Your task to perform on an android device: Search for "lg ultragear" on newegg.com, select the first entry, add it to the cart, then select checkout. Image 0: 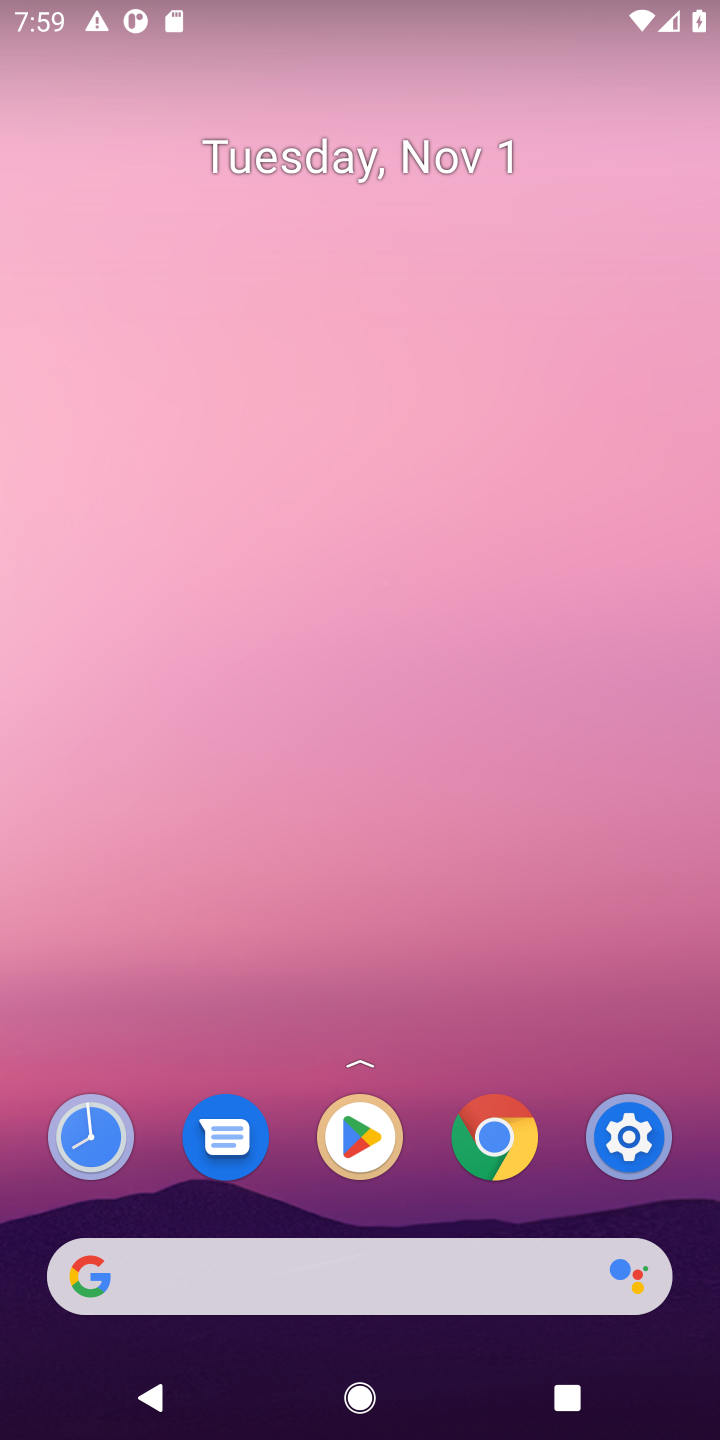
Step 0: click (296, 1268)
Your task to perform on an android device: Search for "lg ultragear" on newegg.com, select the first entry, add it to the cart, then select checkout. Image 1: 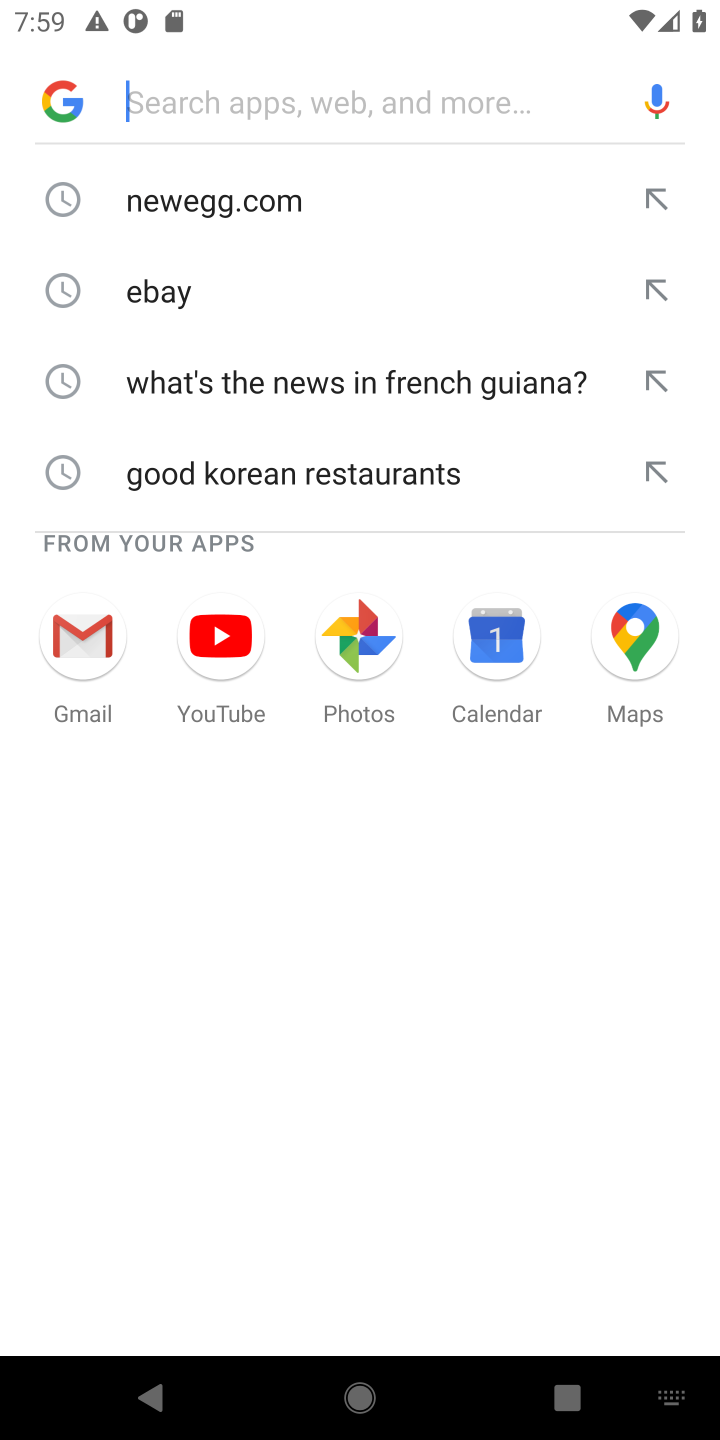
Step 1: type " newegg.com"
Your task to perform on an android device: Search for "lg ultragear" on newegg.com, select the first entry, add it to the cart, then select checkout. Image 2: 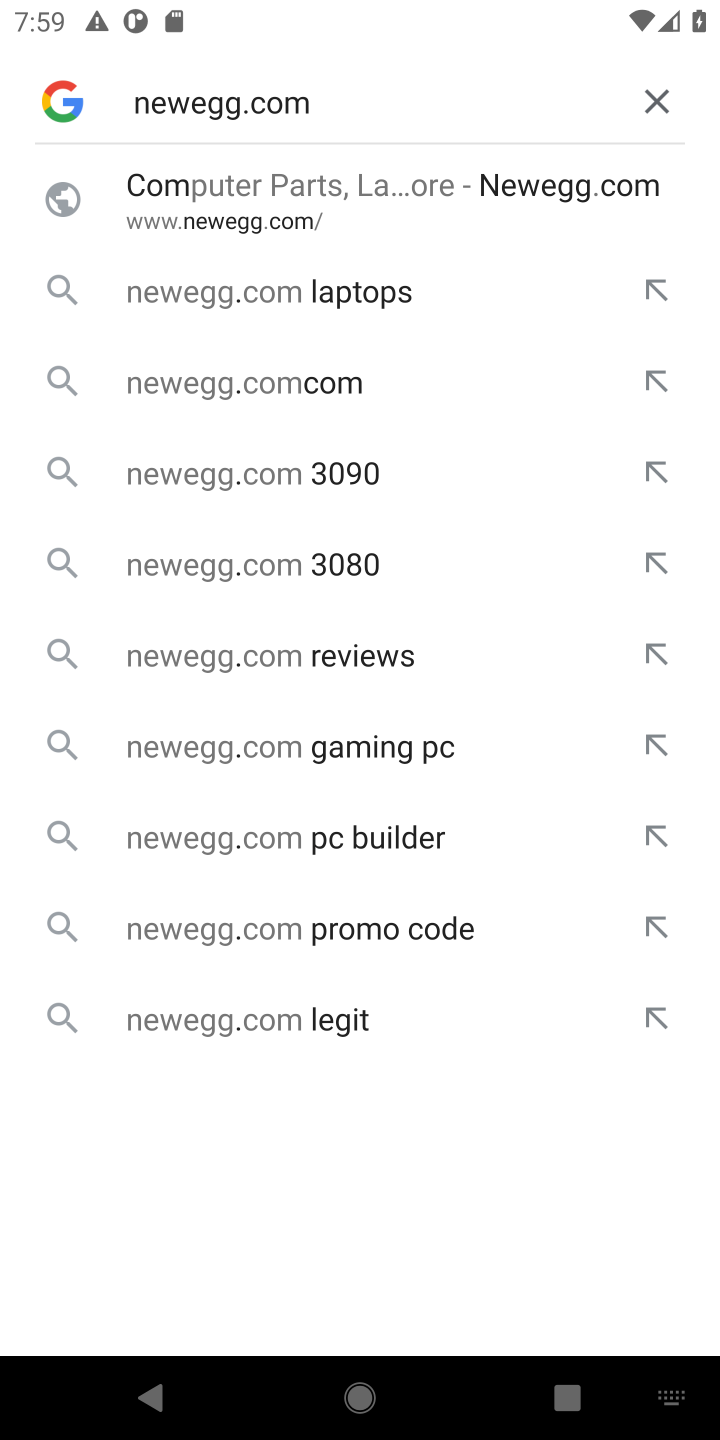
Step 2: click (222, 204)
Your task to perform on an android device: Search for "lg ultragear" on newegg.com, select the first entry, add it to the cart, then select checkout. Image 3: 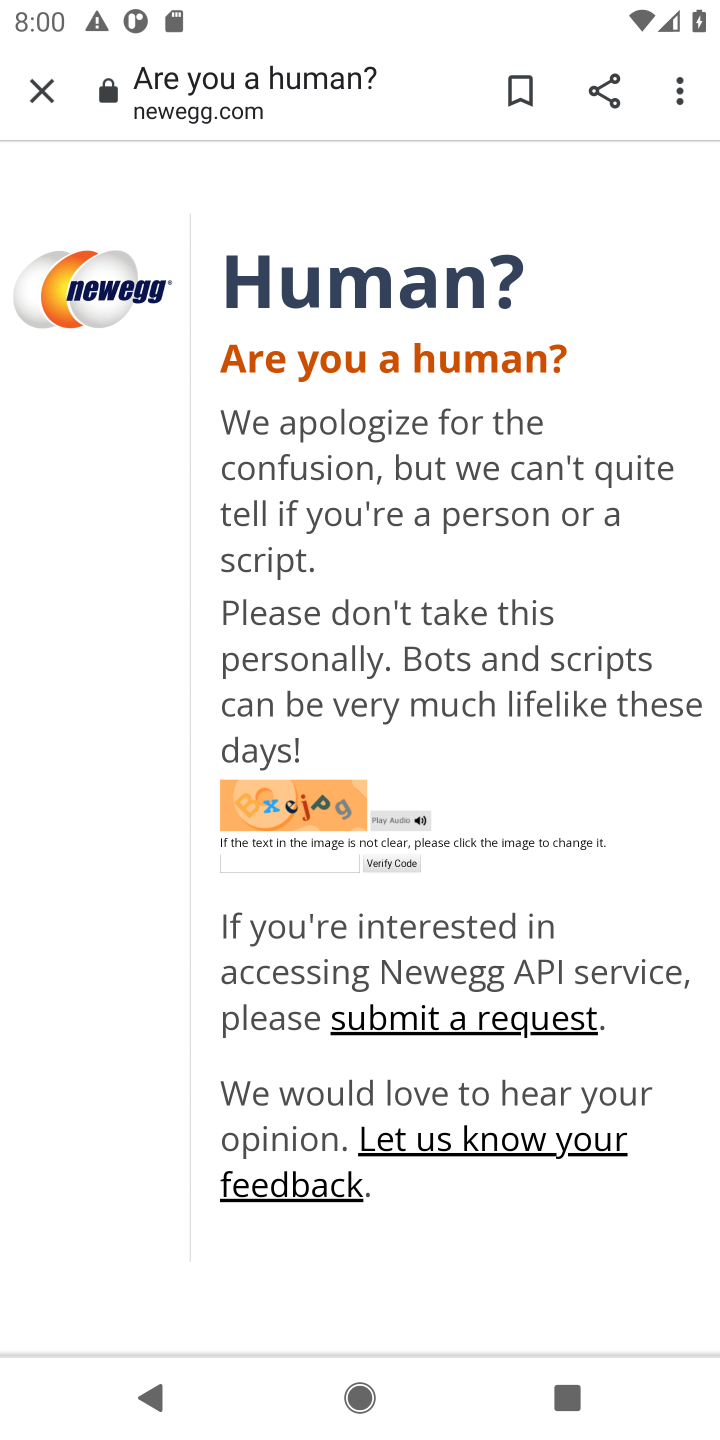
Step 3: click (298, 845)
Your task to perform on an android device: Search for "lg ultragear" on newegg.com, select the first entry, add it to the cart, then select checkout. Image 4: 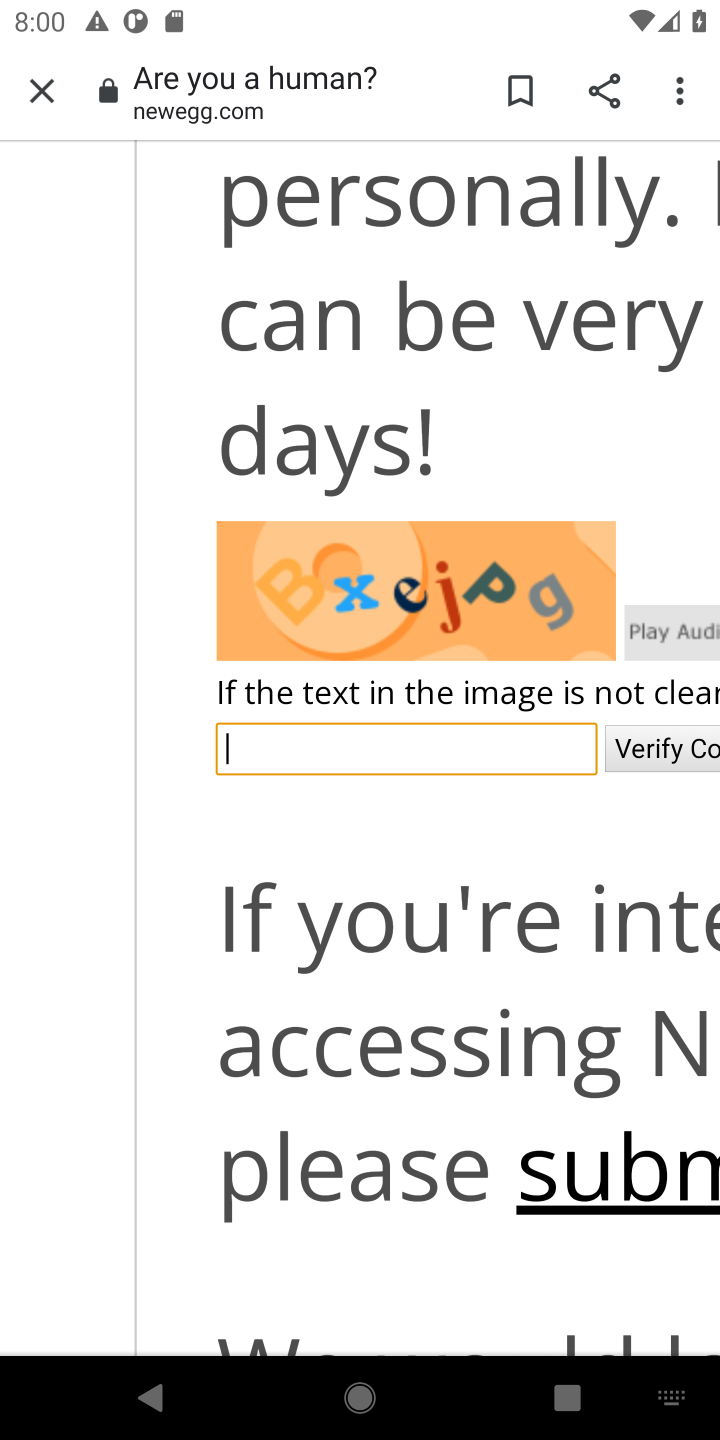
Step 4: type "Bxejpg"
Your task to perform on an android device: Search for "lg ultragear" on newegg.com, select the first entry, add it to the cart, then select checkout. Image 5: 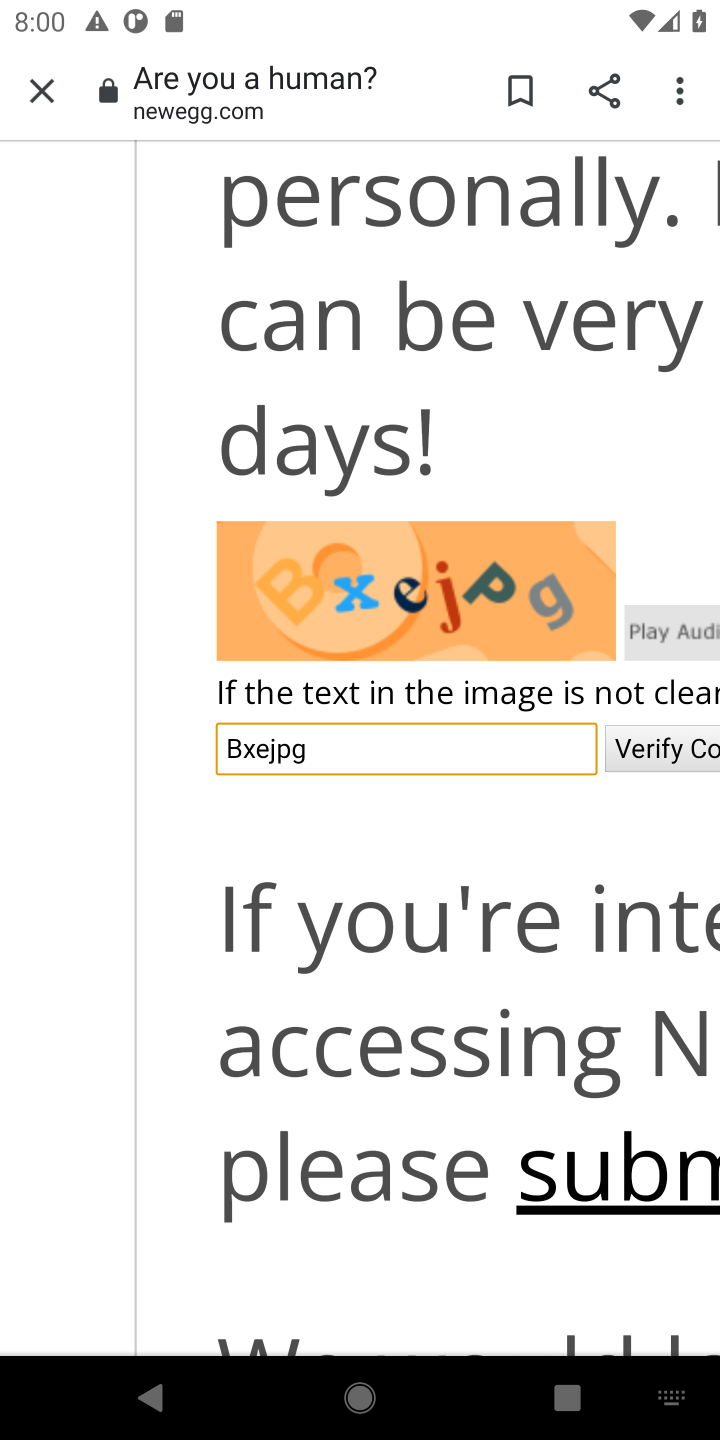
Step 5: click (651, 759)
Your task to perform on an android device: Search for "lg ultragear" on newegg.com, select the first entry, add it to the cart, then select checkout. Image 6: 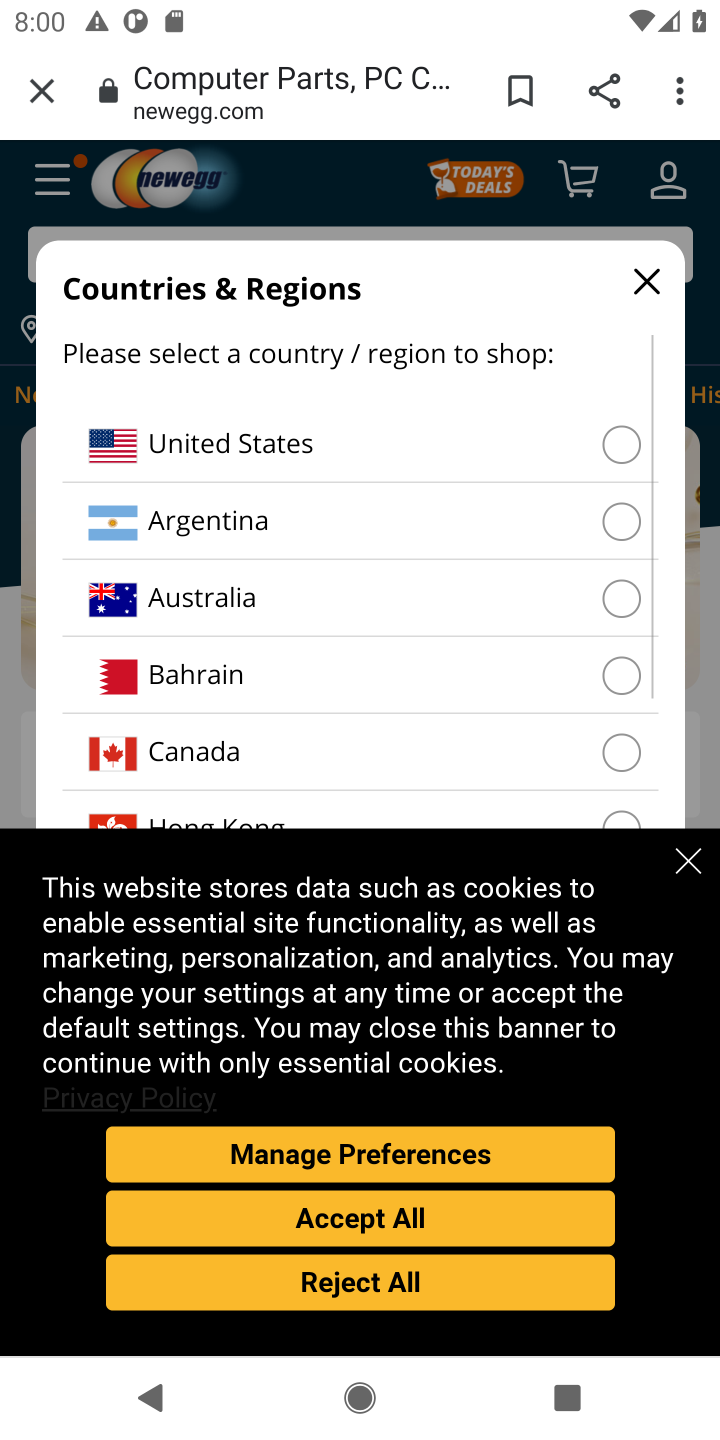
Step 6: click (684, 865)
Your task to perform on an android device: Search for "lg ultragear" on newegg.com, select the first entry, add it to the cart, then select checkout. Image 7: 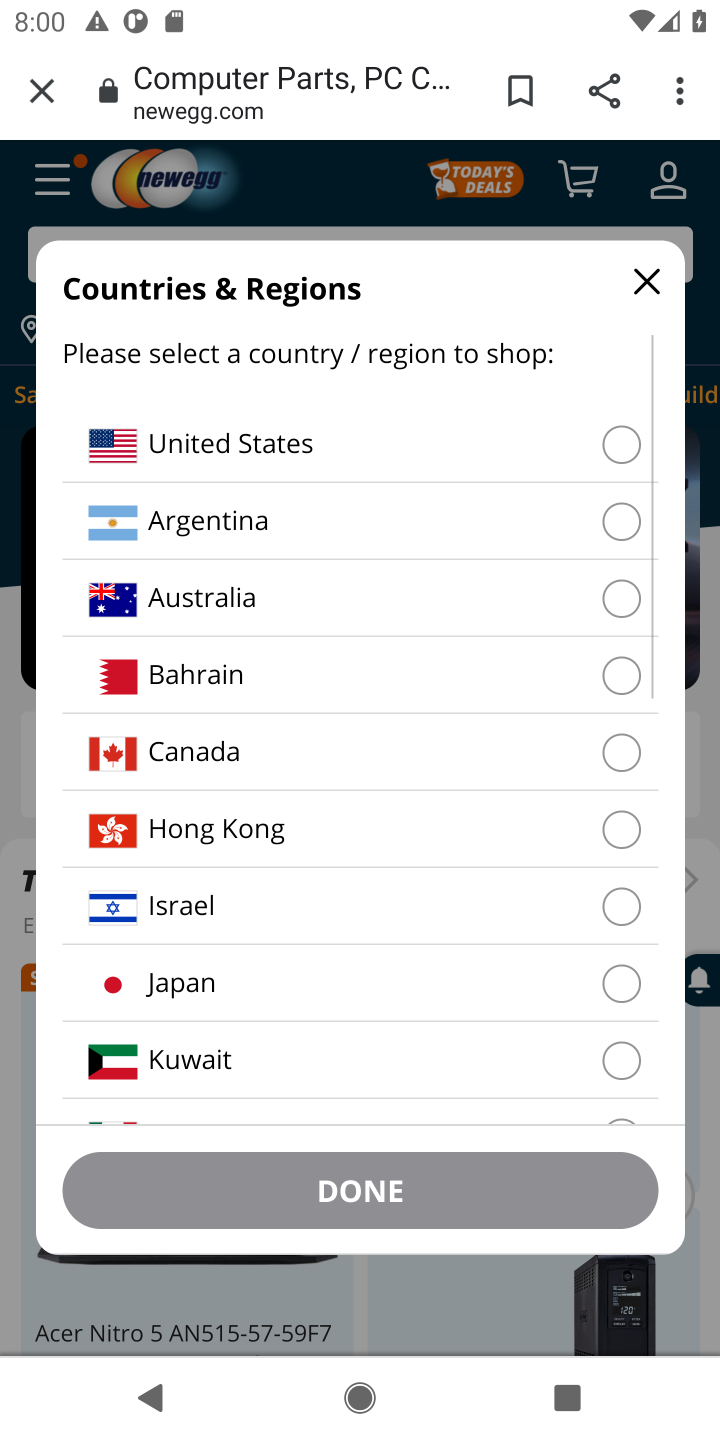
Step 7: click (624, 462)
Your task to perform on an android device: Search for "lg ultragear" on newegg.com, select the first entry, add it to the cart, then select checkout. Image 8: 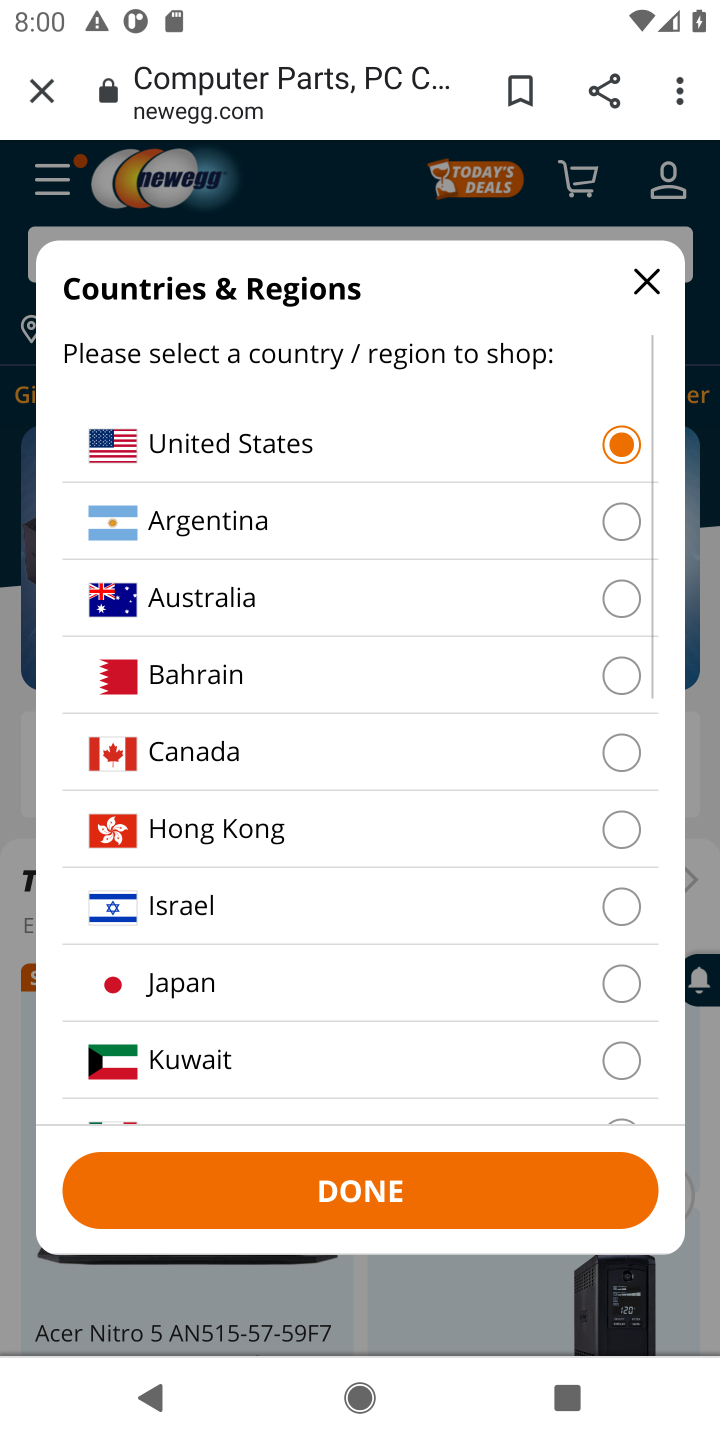
Step 8: click (342, 1168)
Your task to perform on an android device: Search for "lg ultragear" on newegg.com, select the first entry, add it to the cart, then select checkout. Image 9: 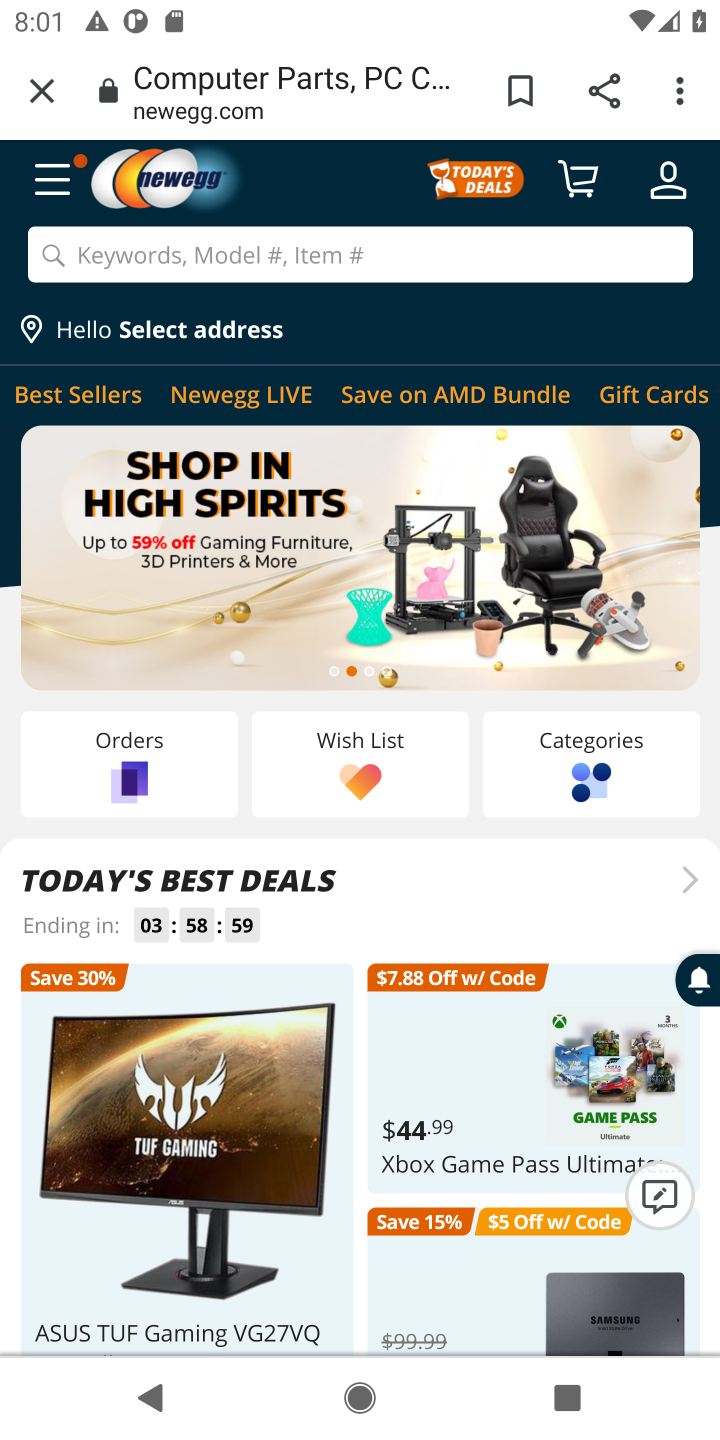
Step 9: click (290, 266)
Your task to perform on an android device: Search for "lg ultragear" on newegg.com, select the first entry, add it to the cart, then select checkout. Image 10: 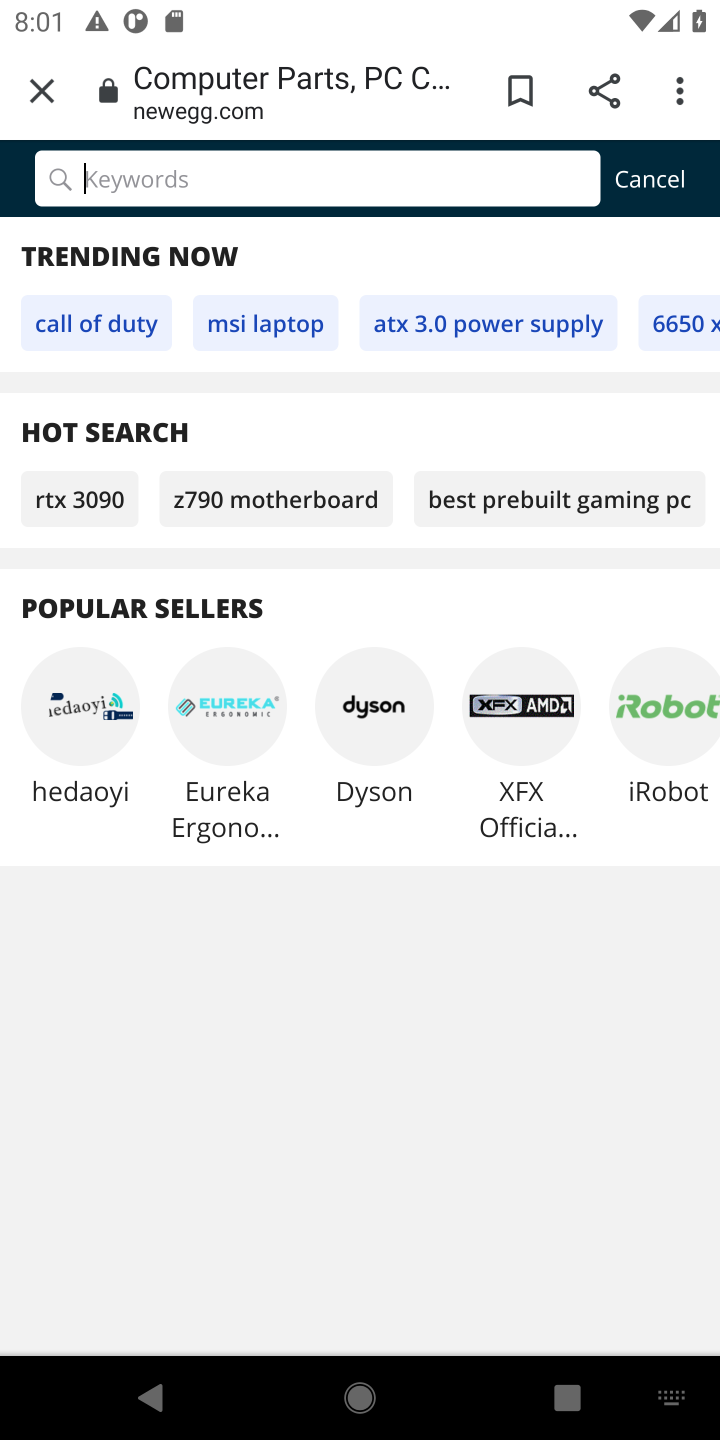
Step 10: type "lg ultragear"
Your task to perform on an android device: Search for "lg ultragear" on newegg.com, select the first entry, add it to the cart, then select checkout. Image 11: 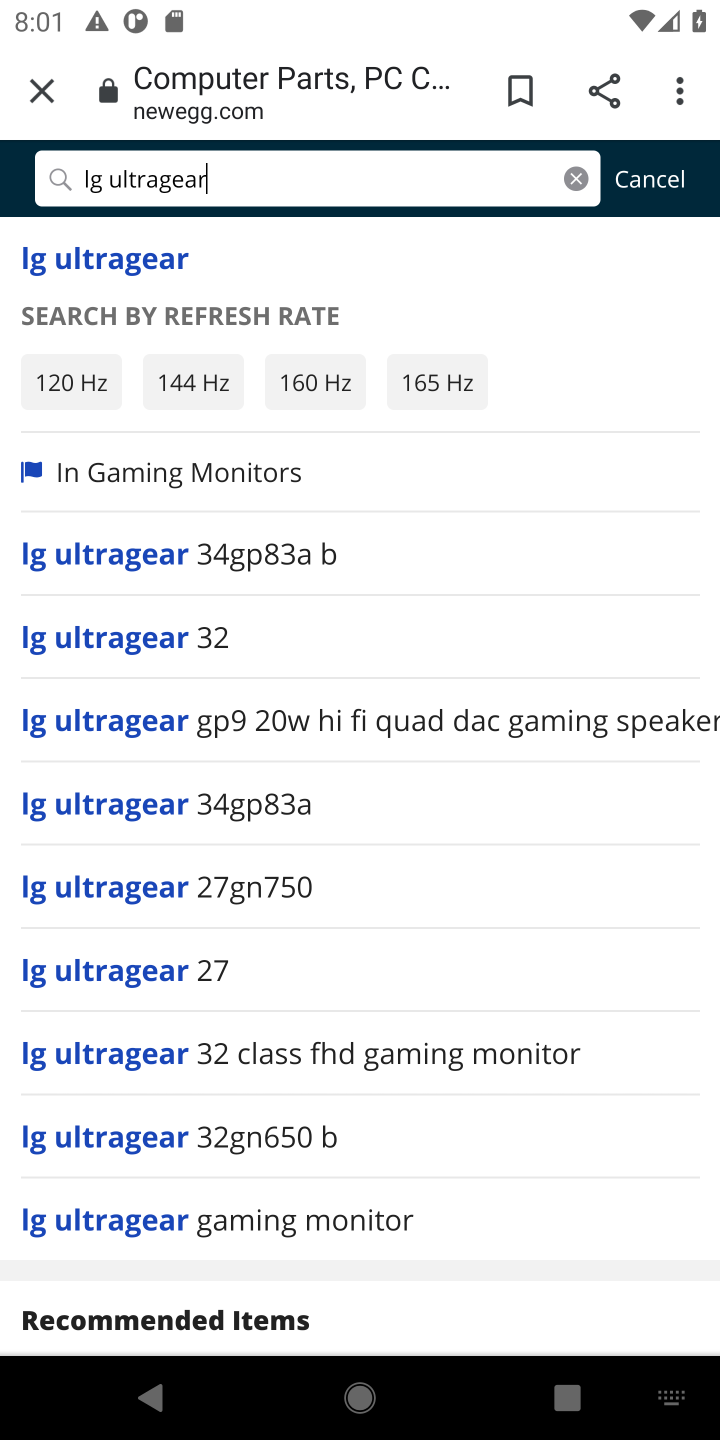
Step 11: click (60, 633)
Your task to perform on an android device: Search for "lg ultragear" on newegg.com, select the first entry, add it to the cart, then select checkout. Image 12: 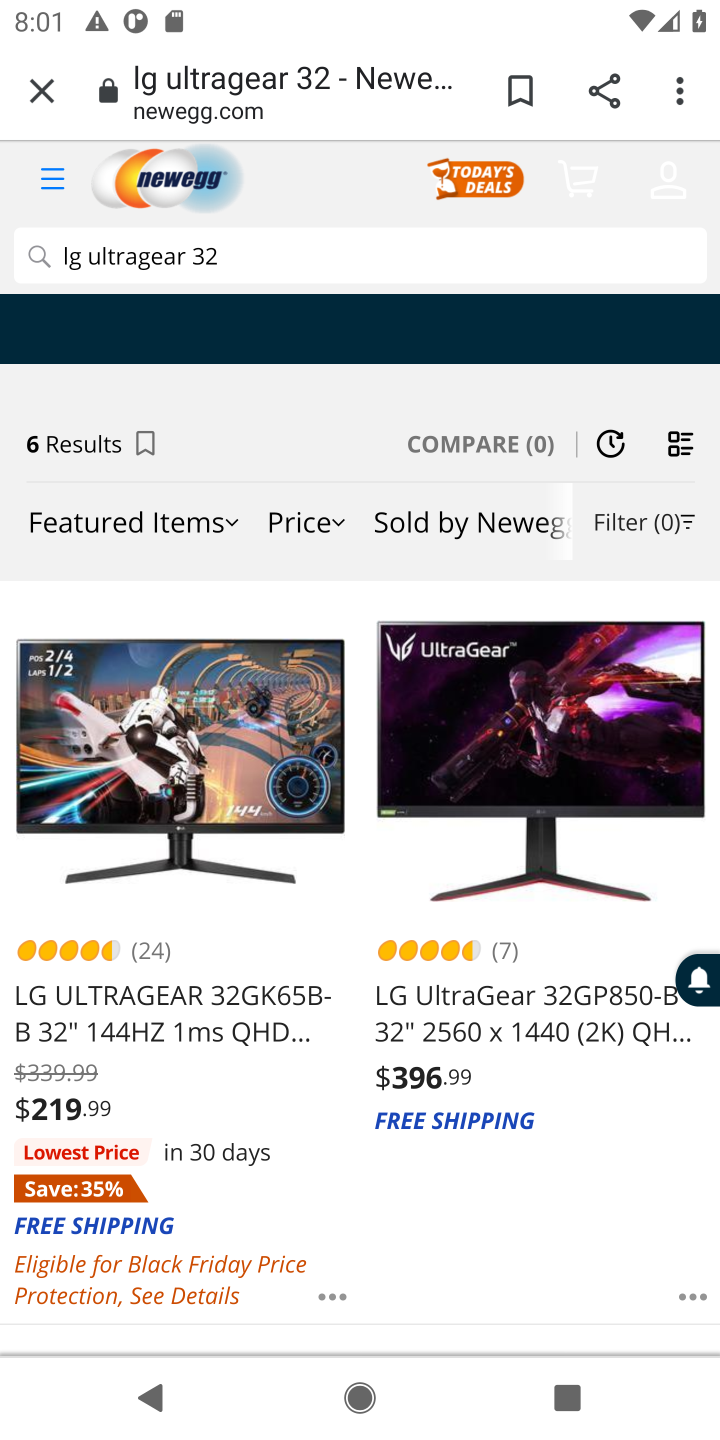
Step 12: click (60, 633)
Your task to perform on an android device: Search for "lg ultragear" on newegg.com, select the first entry, add it to the cart, then select checkout. Image 13: 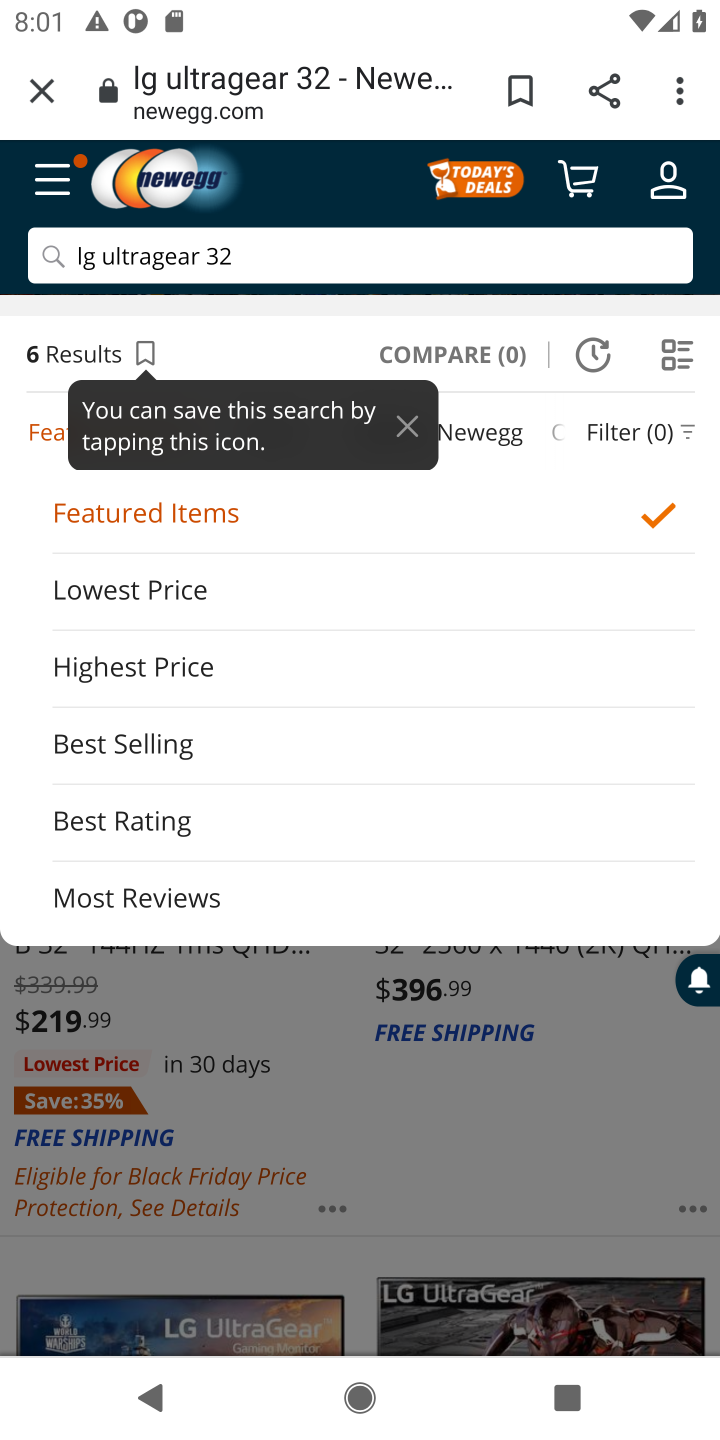
Step 13: press back button
Your task to perform on an android device: Search for "lg ultragear" on newegg.com, select the first entry, add it to the cart, then select checkout. Image 14: 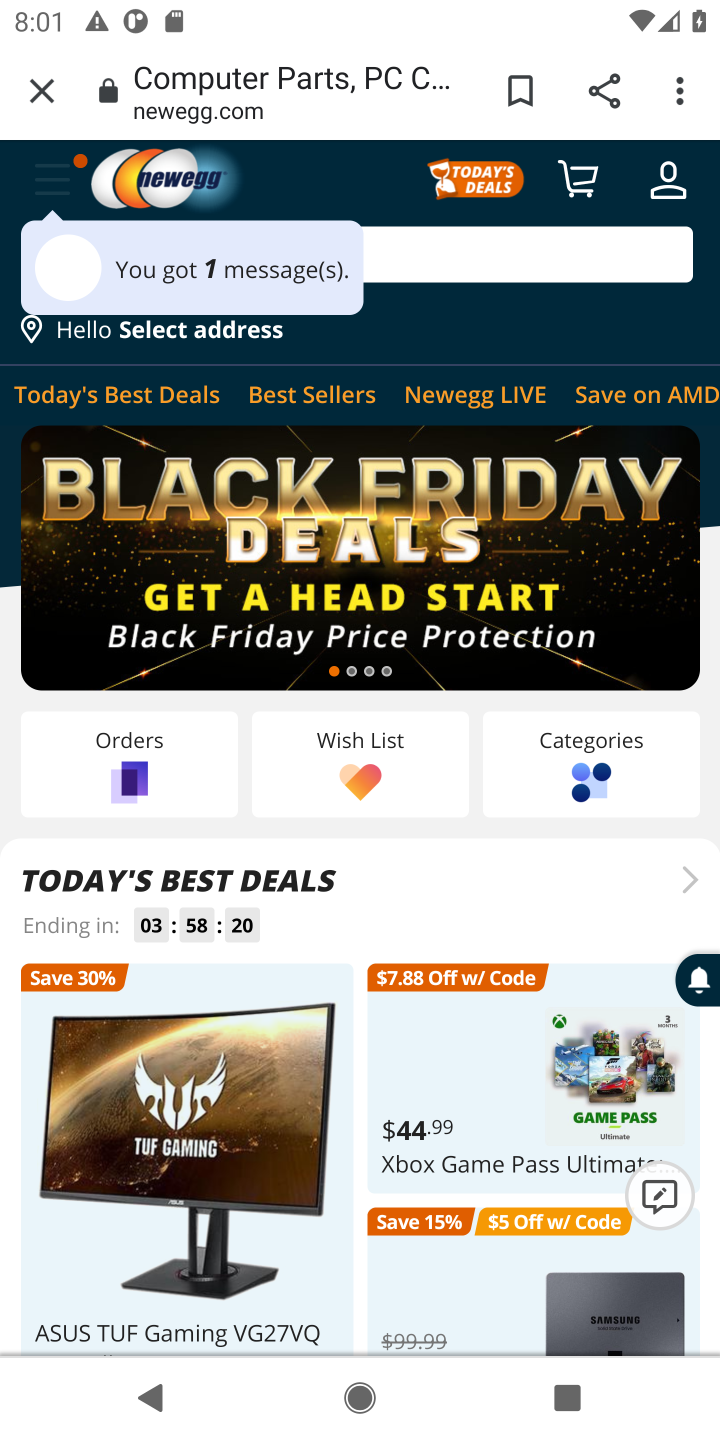
Step 14: click (174, 1200)
Your task to perform on an android device: Search for "lg ultragear" on newegg.com, select the first entry, add it to the cart, then select checkout. Image 15: 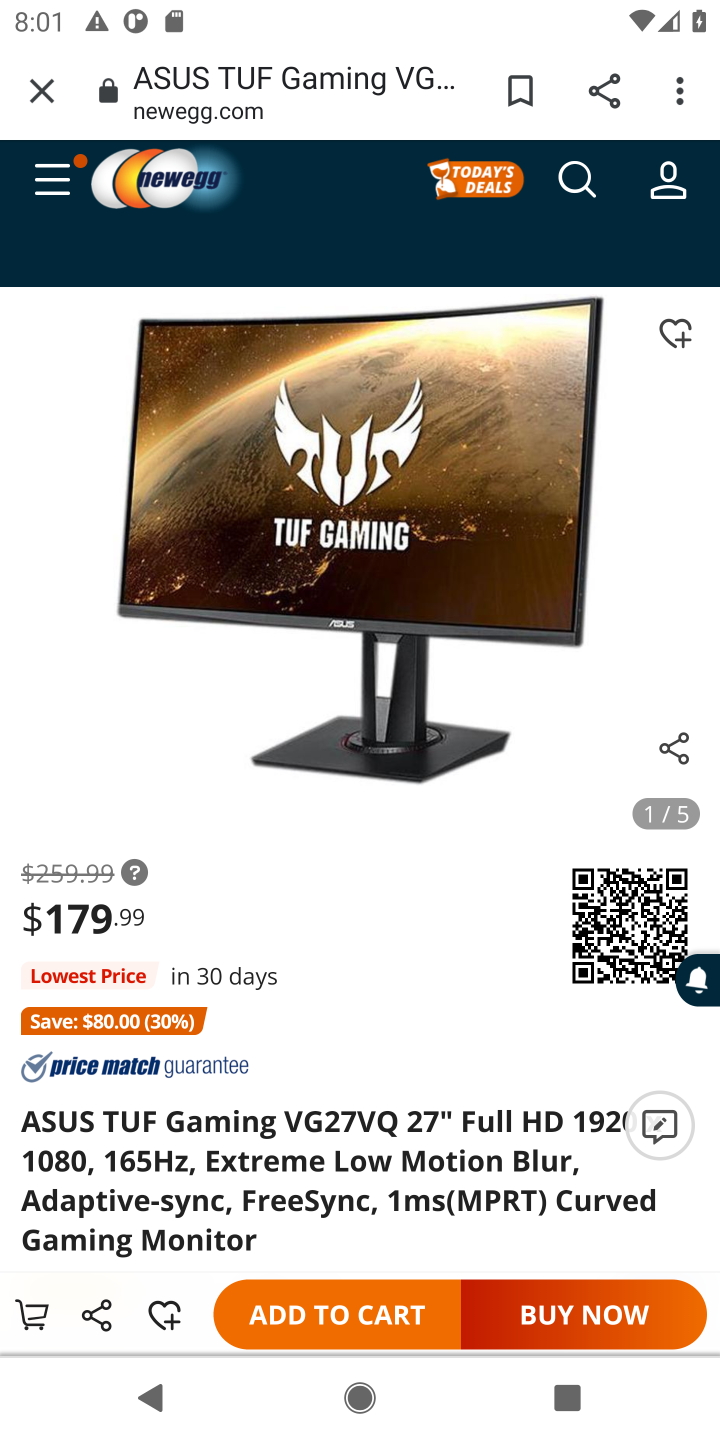
Step 15: click (317, 1320)
Your task to perform on an android device: Search for "lg ultragear" on newegg.com, select the first entry, add it to the cart, then select checkout. Image 16: 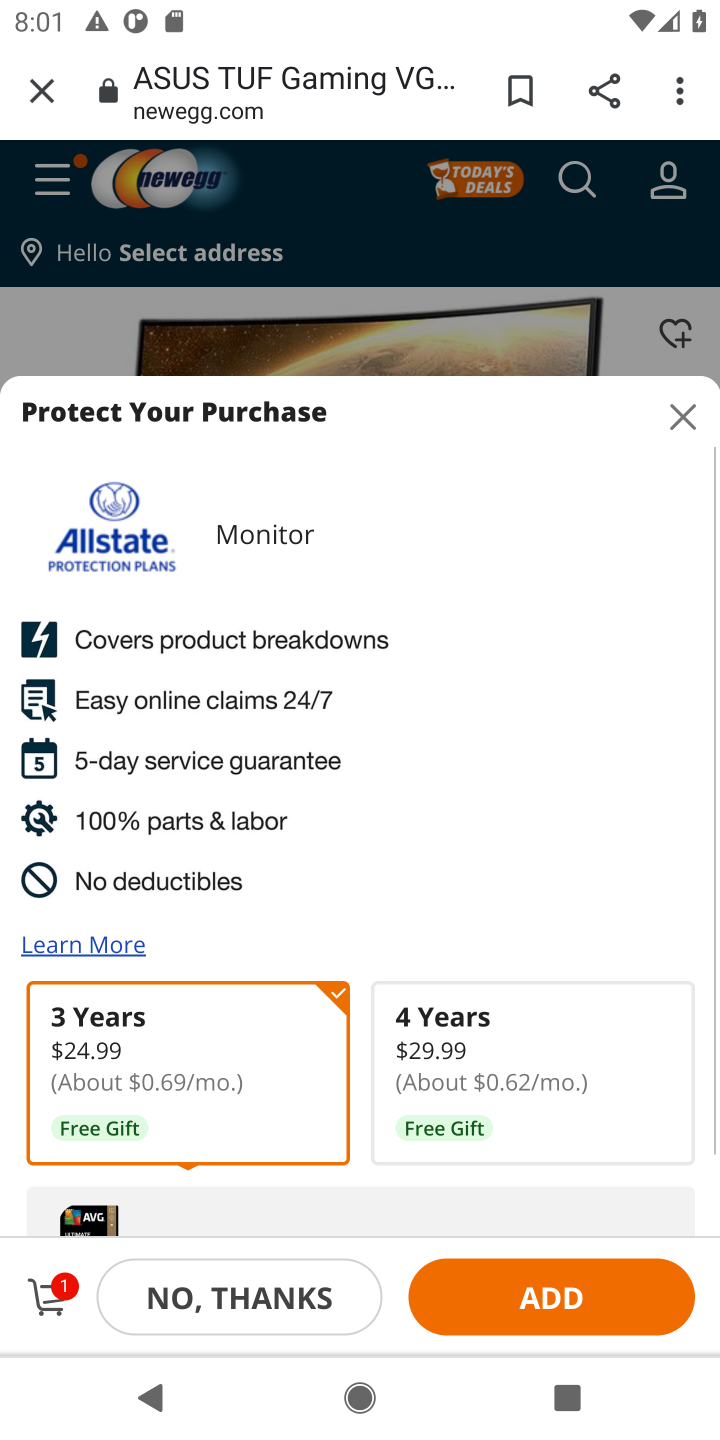
Step 16: click (313, 1276)
Your task to perform on an android device: Search for "lg ultragear" on newegg.com, select the first entry, add it to the cart, then select checkout. Image 17: 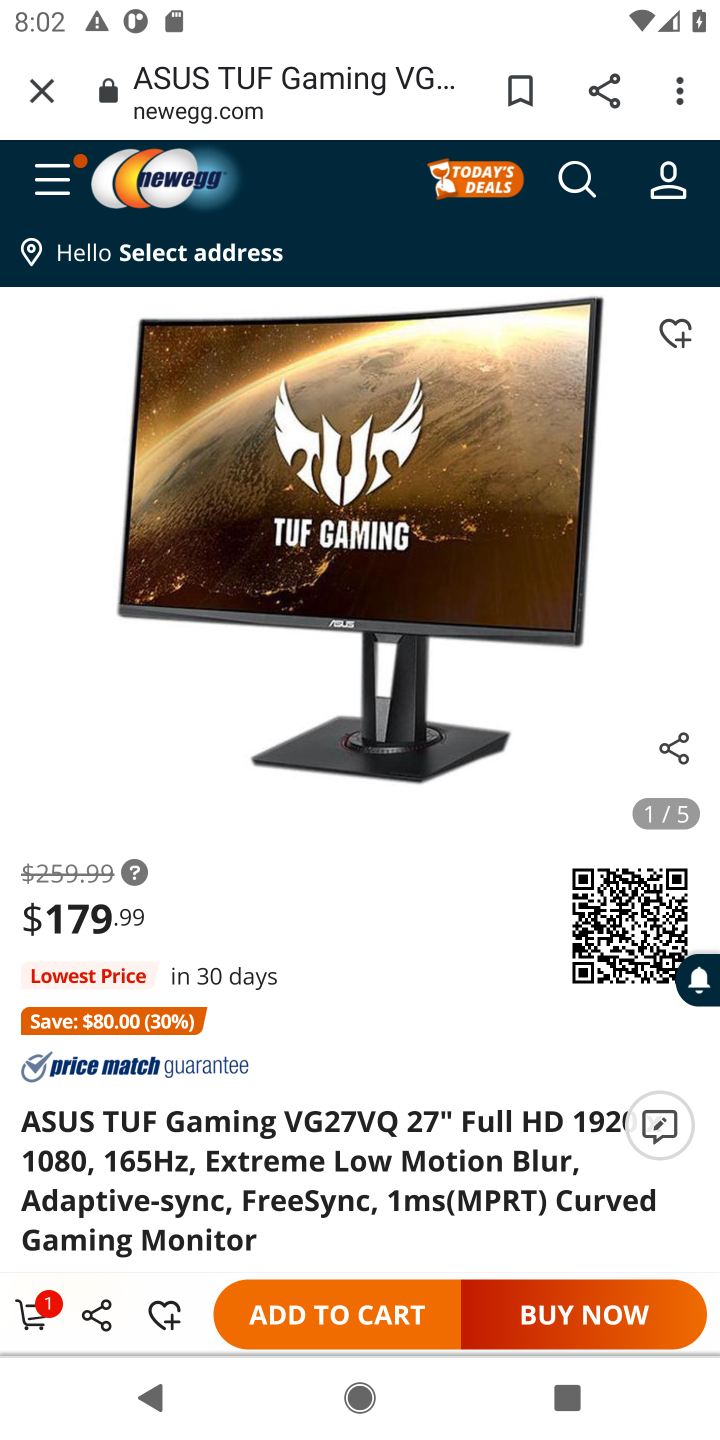
Step 17: task complete